Your task to perform on an android device: Go to Google Image 0: 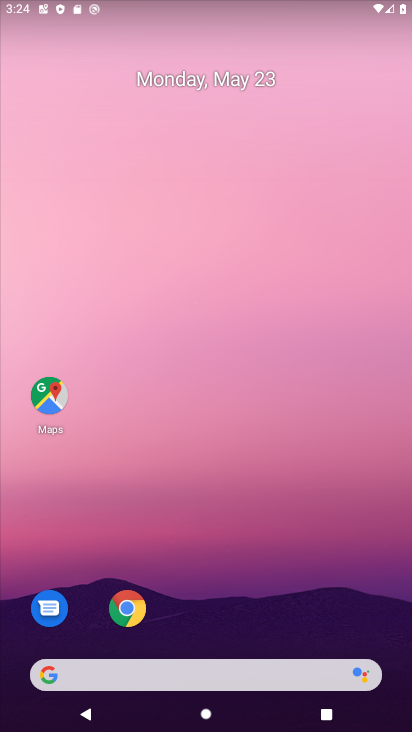
Step 0: drag from (340, 615) to (153, 10)
Your task to perform on an android device: Go to Google Image 1: 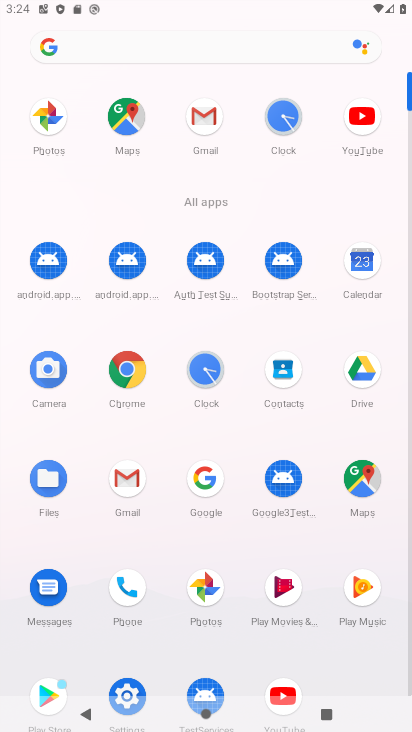
Step 1: click (205, 480)
Your task to perform on an android device: Go to Google Image 2: 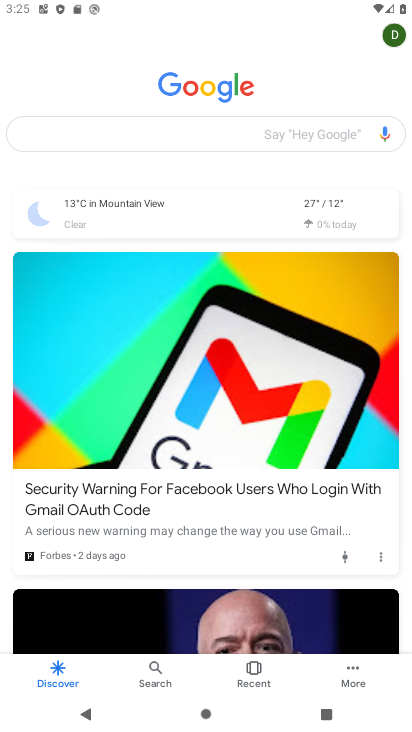
Step 2: task complete